Your task to perform on an android device: turn notification dots on Image 0: 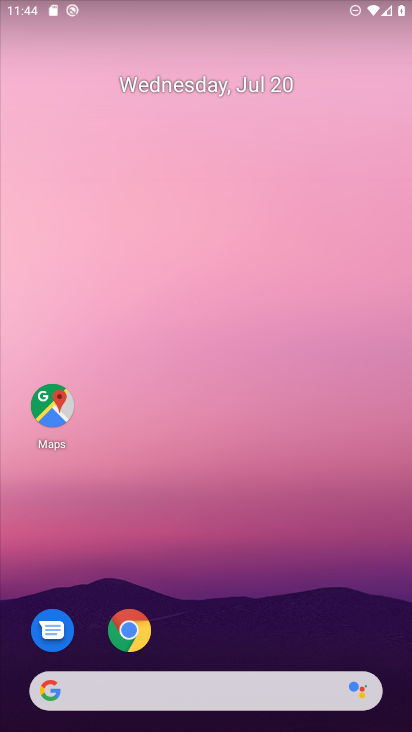
Step 0: drag from (205, 508) to (189, 159)
Your task to perform on an android device: turn notification dots on Image 1: 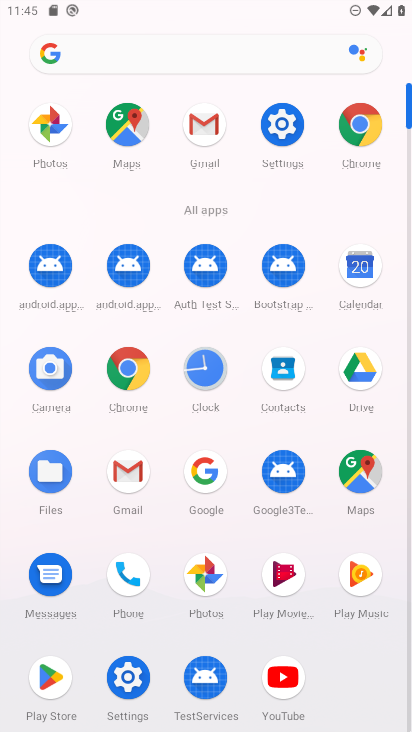
Step 1: click (279, 145)
Your task to perform on an android device: turn notification dots on Image 2: 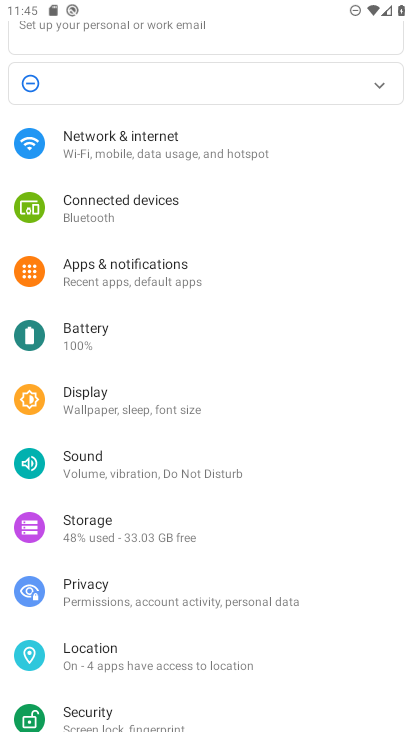
Step 2: click (163, 296)
Your task to perform on an android device: turn notification dots on Image 3: 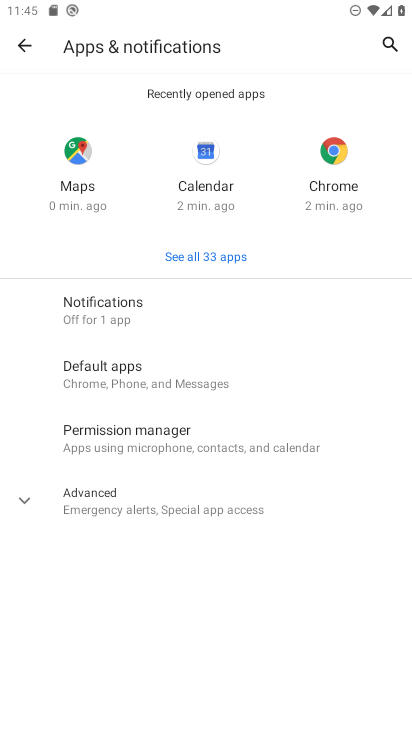
Step 3: click (102, 306)
Your task to perform on an android device: turn notification dots on Image 4: 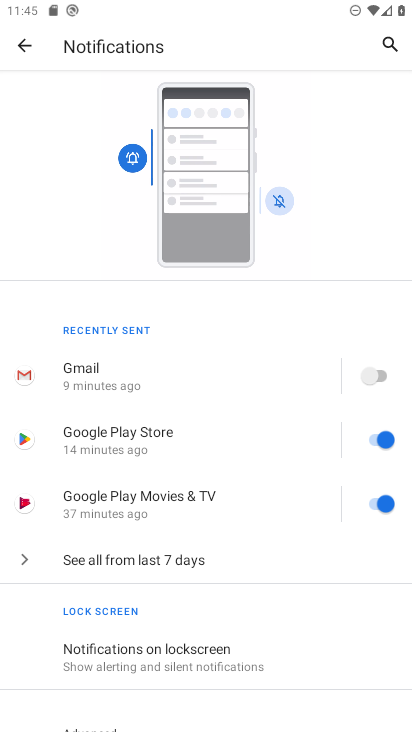
Step 4: drag from (132, 603) to (150, 411)
Your task to perform on an android device: turn notification dots on Image 5: 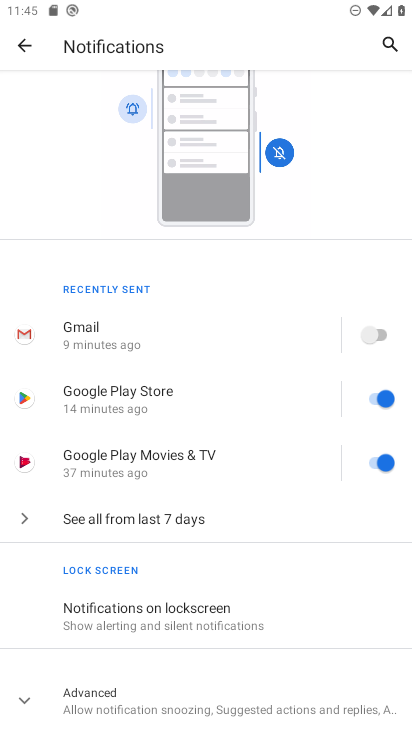
Step 5: click (134, 703)
Your task to perform on an android device: turn notification dots on Image 6: 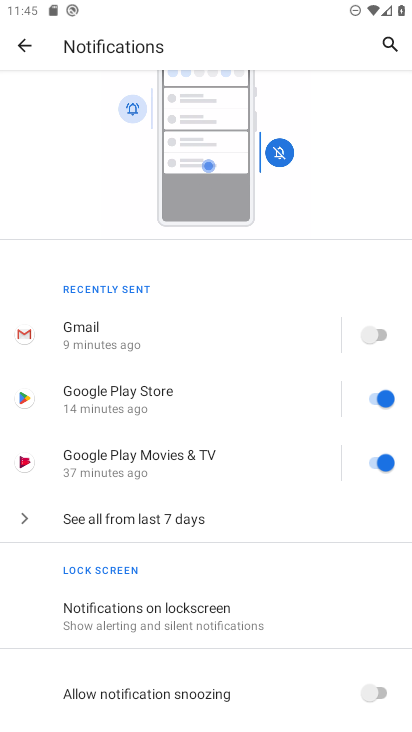
Step 6: task complete